Your task to perform on an android device: Open a new Chrome private tab Image 0: 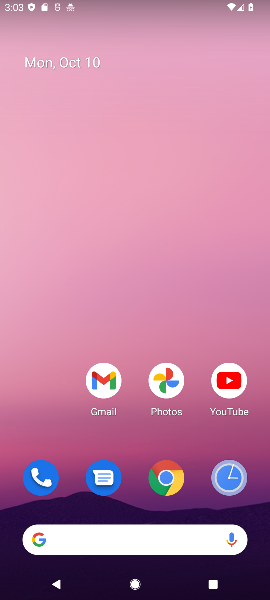
Step 0: click (173, 482)
Your task to perform on an android device: Open a new Chrome private tab Image 1: 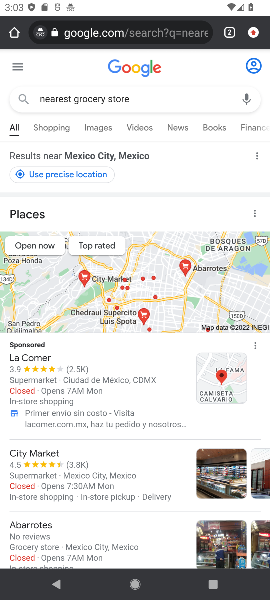
Step 1: click (258, 30)
Your task to perform on an android device: Open a new Chrome private tab Image 2: 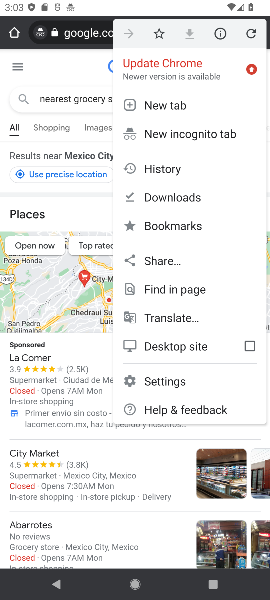
Step 2: click (166, 142)
Your task to perform on an android device: Open a new Chrome private tab Image 3: 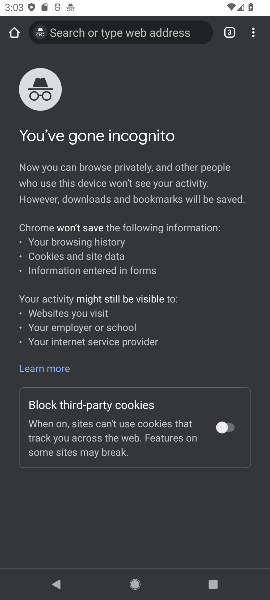
Step 3: task complete